Your task to perform on an android device: open app "Grab" (install if not already installed) Image 0: 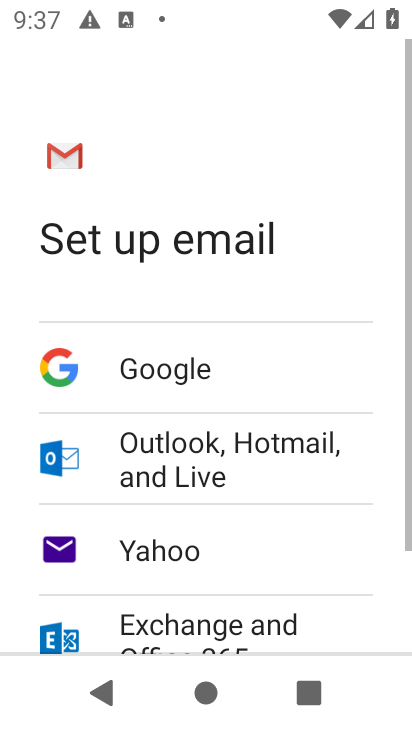
Step 0: press home button
Your task to perform on an android device: open app "Grab" (install if not already installed) Image 1: 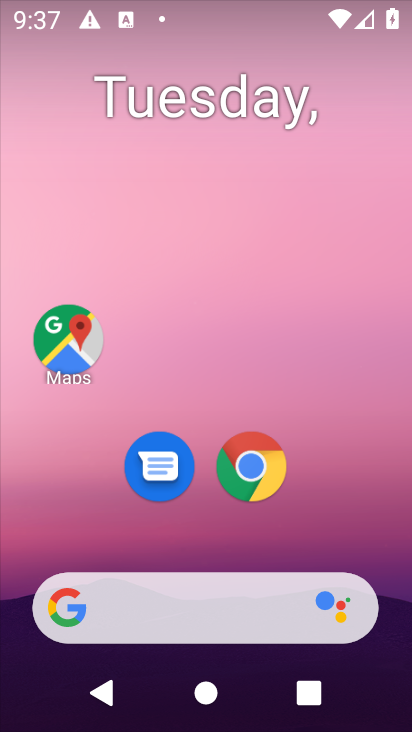
Step 1: drag from (179, 530) to (263, 6)
Your task to perform on an android device: open app "Grab" (install if not already installed) Image 2: 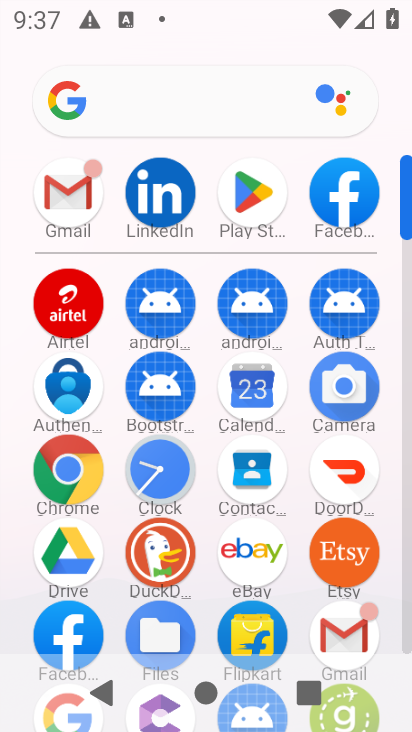
Step 2: click (250, 189)
Your task to perform on an android device: open app "Grab" (install if not already installed) Image 3: 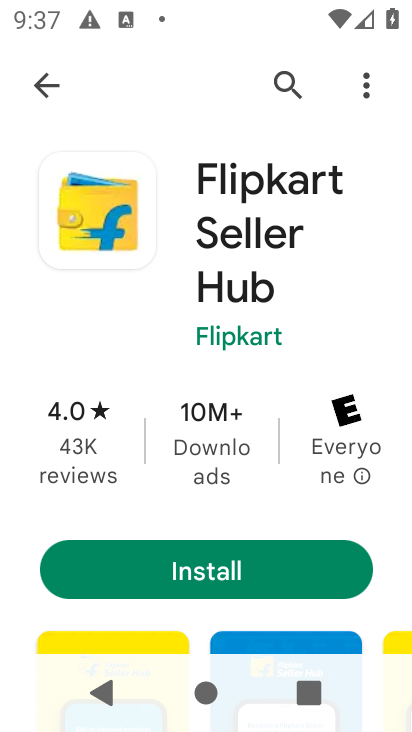
Step 3: click (287, 71)
Your task to perform on an android device: open app "Grab" (install if not already installed) Image 4: 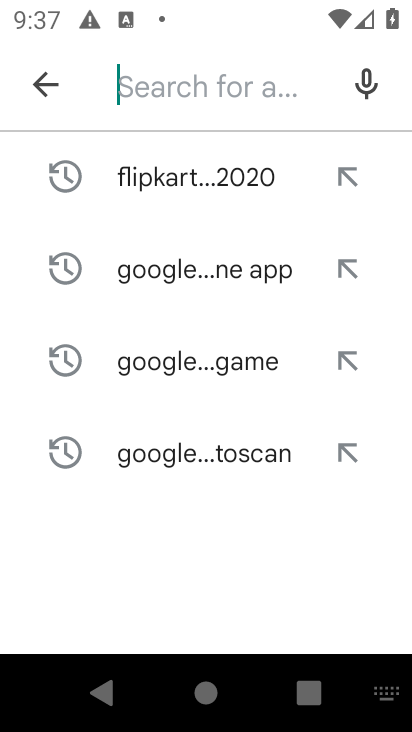
Step 4: click (139, 86)
Your task to perform on an android device: open app "Grab" (install if not already installed) Image 5: 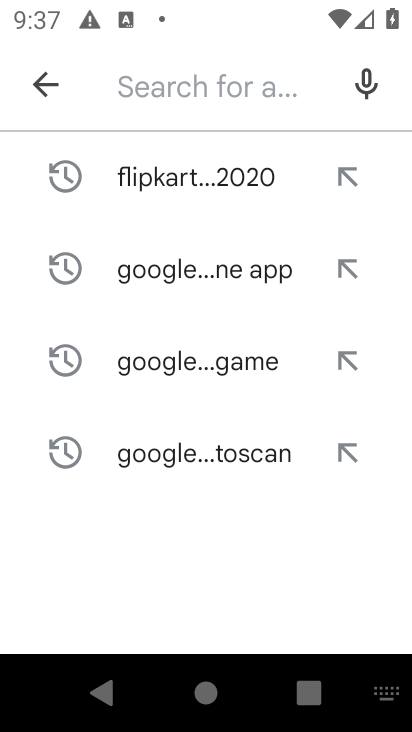
Step 5: type "Grab"
Your task to perform on an android device: open app "Grab" (install if not already installed) Image 6: 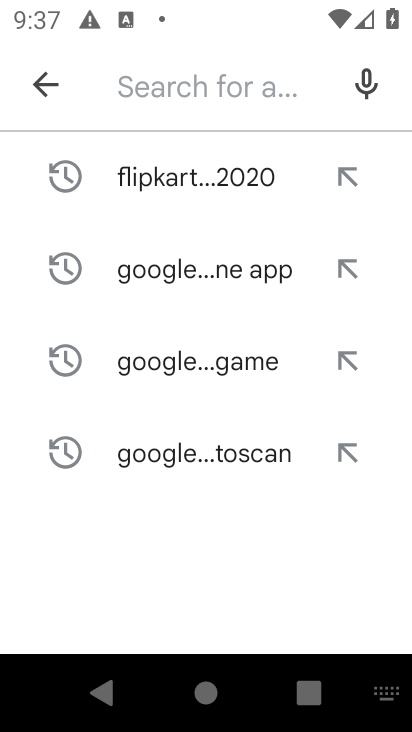
Step 6: click (142, 559)
Your task to perform on an android device: open app "Grab" (install if not already installed) Image 7: 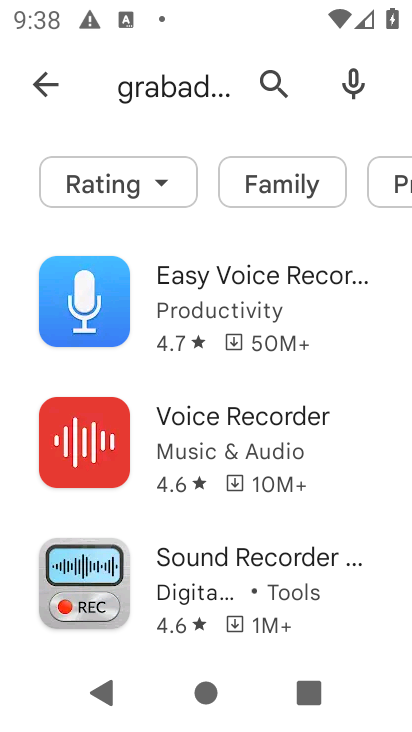
Step 7: task complete